Your task to perform on an android device: turn off location history Image 0: 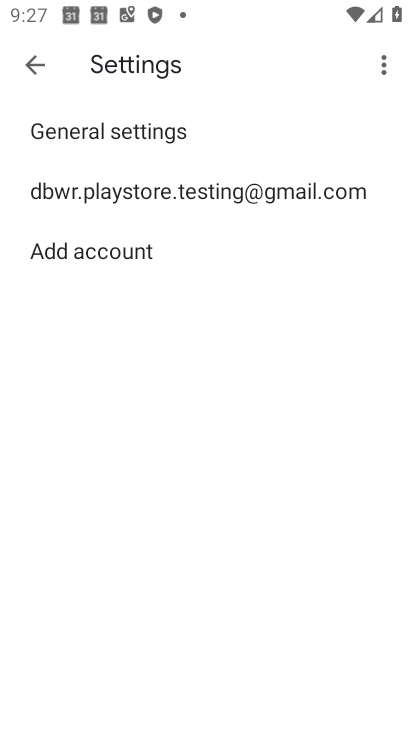
Step 0: press home button
Your task to perform on an android device: turn off location history Image 1: 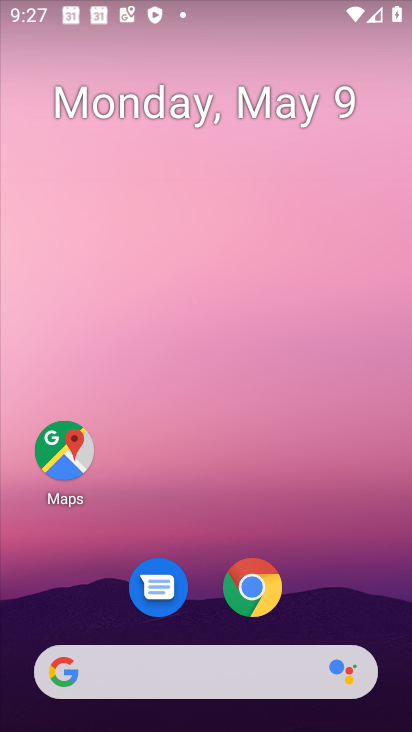
Step 1: drag from (196, 617) to (115, 127)
Your task to perform on an android device: turn off location history Image 2: 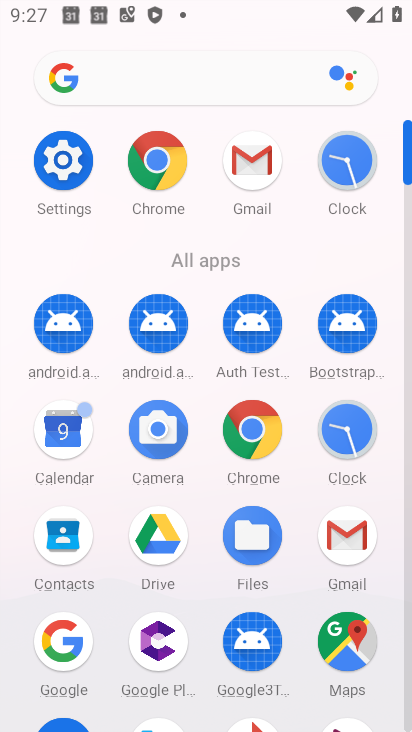
Step 2: click (60, 161)
Your task to perform on an android device: turn off location history Image 3: 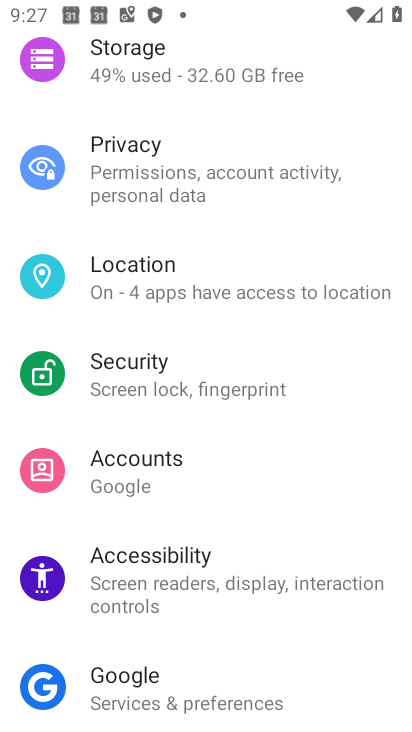
Step 3: click (230, 276)
Your task to perform on an android device: turn off location history Image 4: 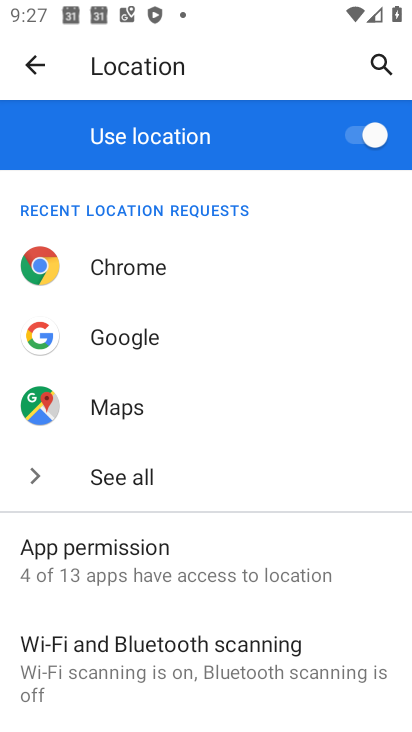
Step 4: drag from (181, 667) to (246, 192)
Your task to perform on an android device: turn off location history Image 5: 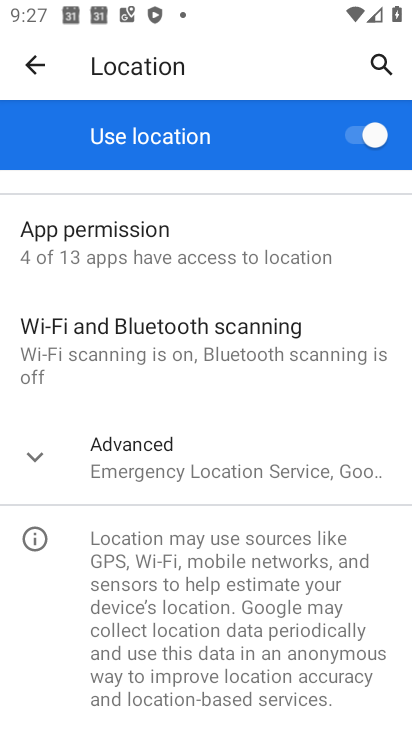
Step 5: click (196, 446)
Your task to perform on an android device: turn off location history Image 6: 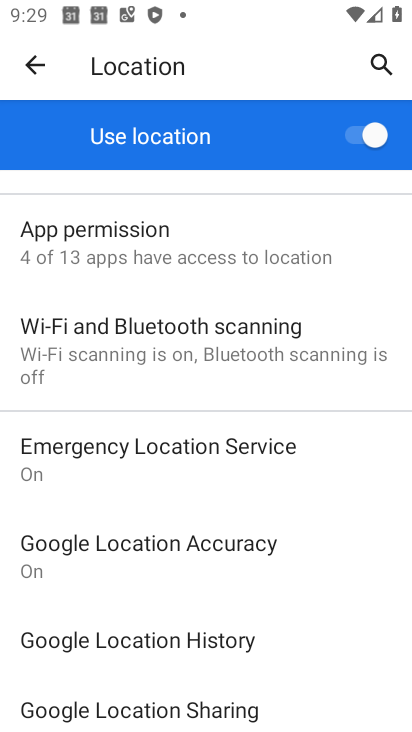
Step 6: click (188, 643)
Your task to perform on an android device: turn off location history Image 7: 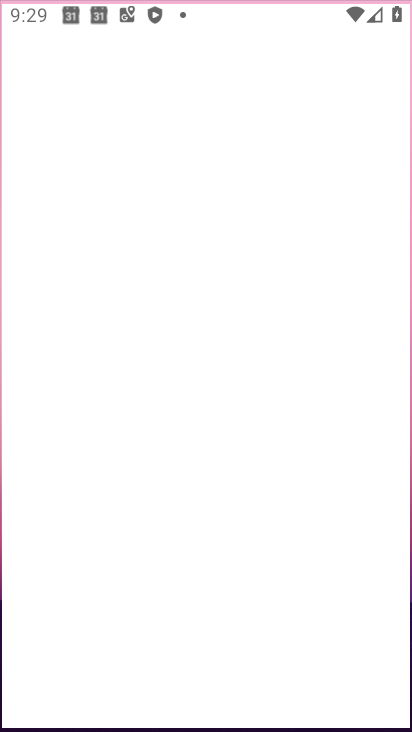
Step 7: click (188, 643)
Your task to perform on an android device: turn off location history Image 8: 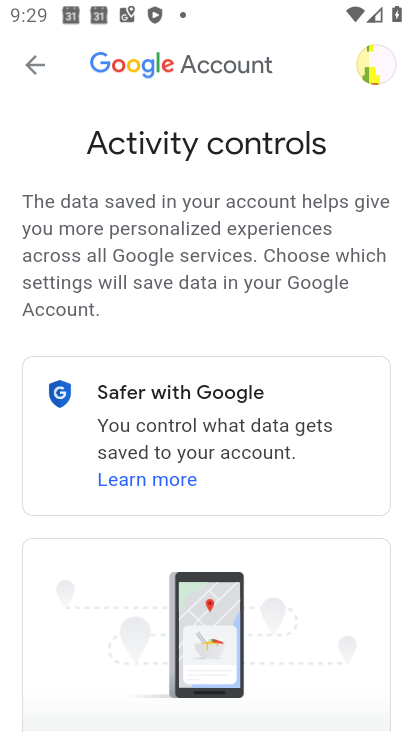
Step 8: drag from (56, 626) to (102, 240)
Your task to perform on an android device: turn off location history Image 9: 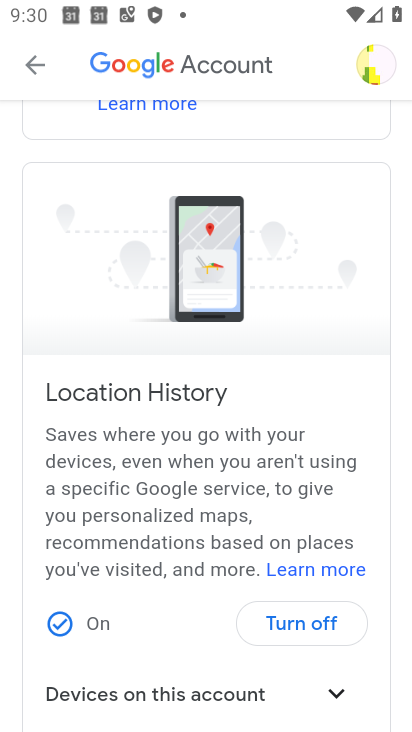
Step 9: click (332, 628)
Your task to perform on an android device: turn off location history Image 10: 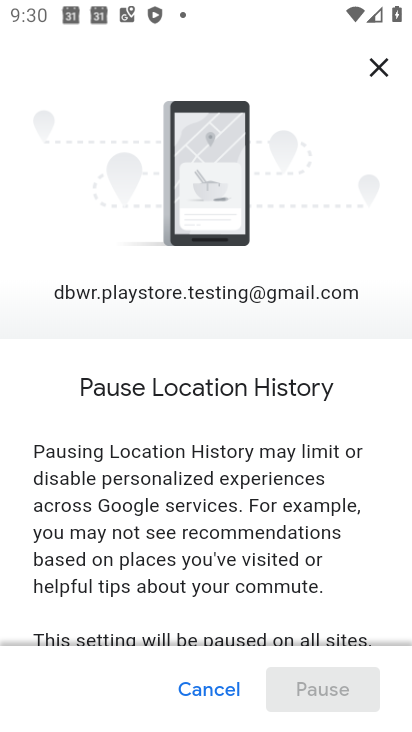
Step 10: drag from (121, 593) to (165, 313)
Your task to perform on an android device: turn off location history Image 11: 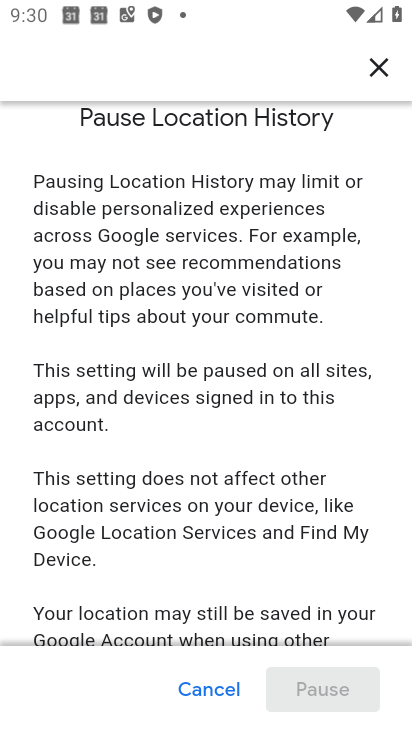
Step 11: drag from (164, 581) to (251, 2)
Your task to perform on an android device: turn off location history Image 12: 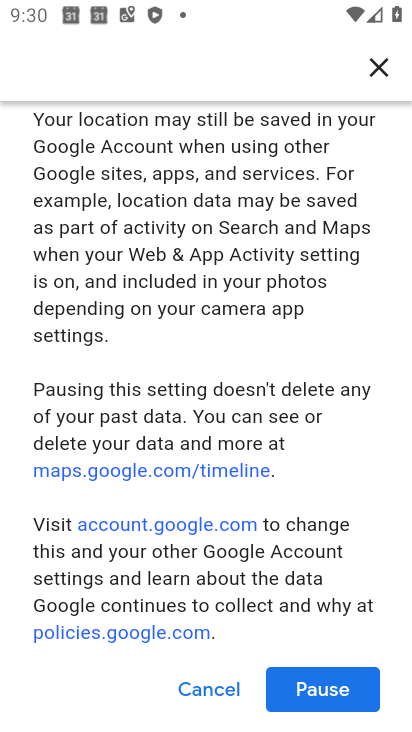
Step 12: drag from (145, 579) to (211, 186)
Your task to perform on an android device: turn off location history Image 13: 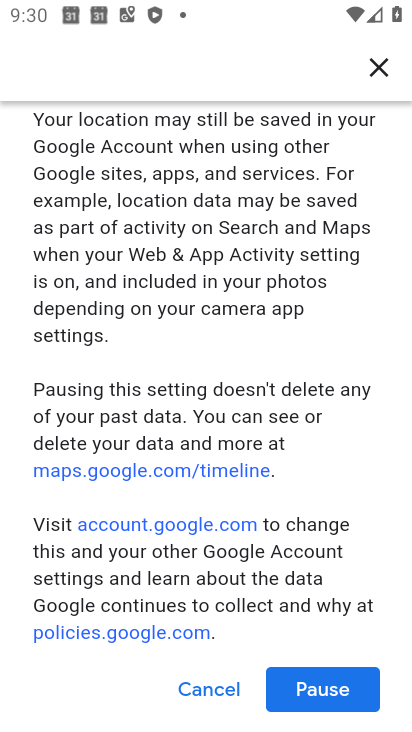
Step 13: click (317, 683)
Your task to perform on an android device: turn off location history Image 14: 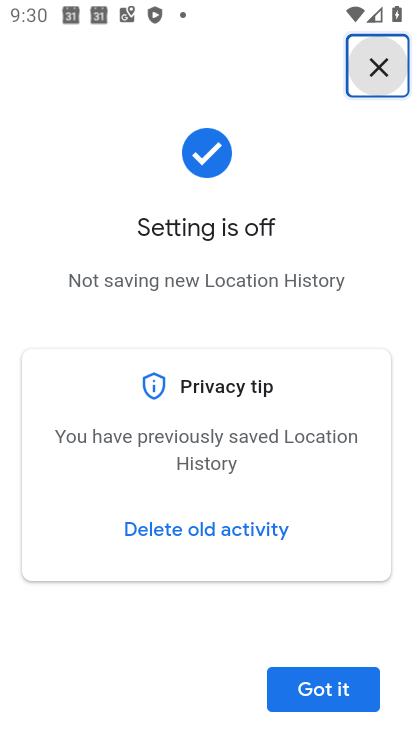
Step 14: click (318, 690)
Your task to perform on an android device: turn off location history Image 15: 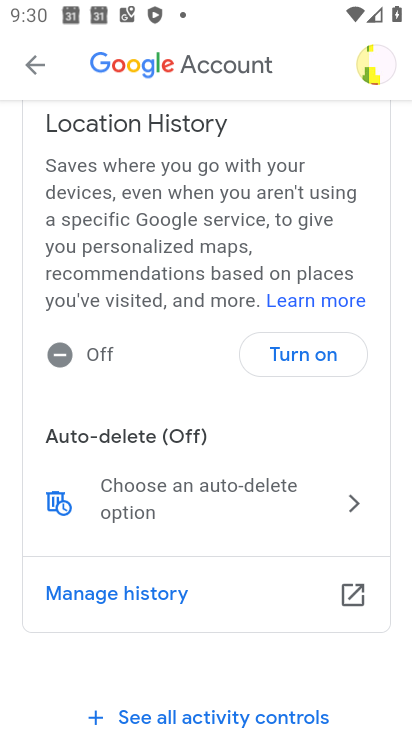
Step 15: task complete